Your task to perform on an android device: What's on my calendar today? Image 0: 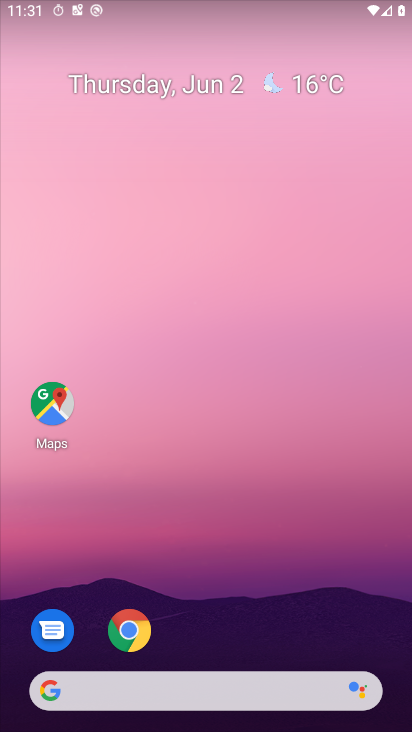
Step 0: drag from (208, 640) to (253, 337)
Your task to perform on an android device: What's on my calendar today? Image 1: 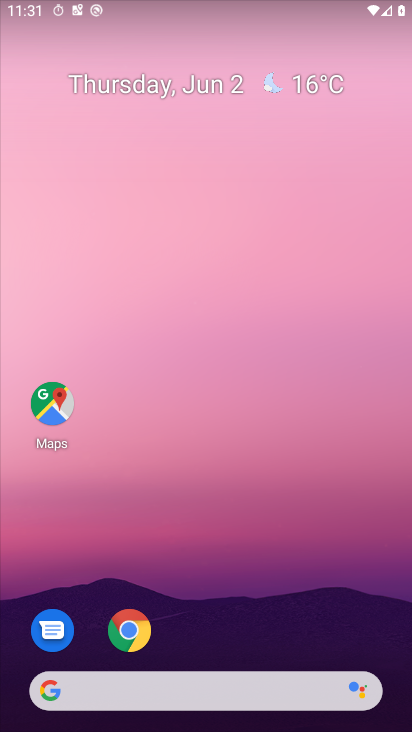
Step 1: drag from (203, 622) to (264, 11)
Your task to perform on an android device: What's on my calendar today? Image 2: 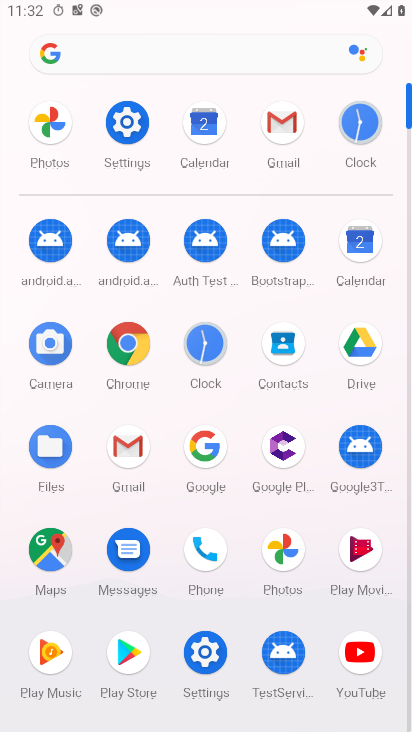
Step 2: click (362, 261)
Your task to perform on an android device: What's on my calendar today? Image 3: 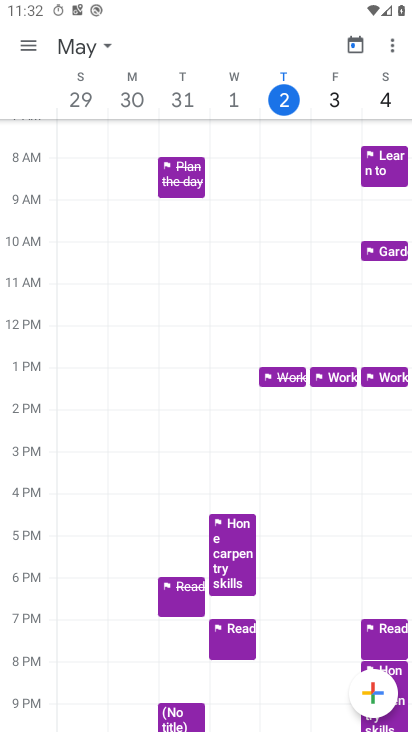
Step 3: click (27, 46)
Your task to perform on an android device: What's on my calendar today? Image 4: 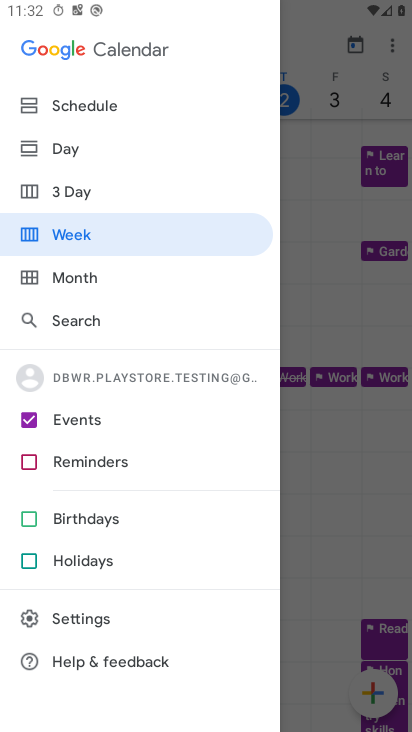
Step 4: click (65, 462)
Your task to perform on an android device: What's on my calendar today? Image 5: 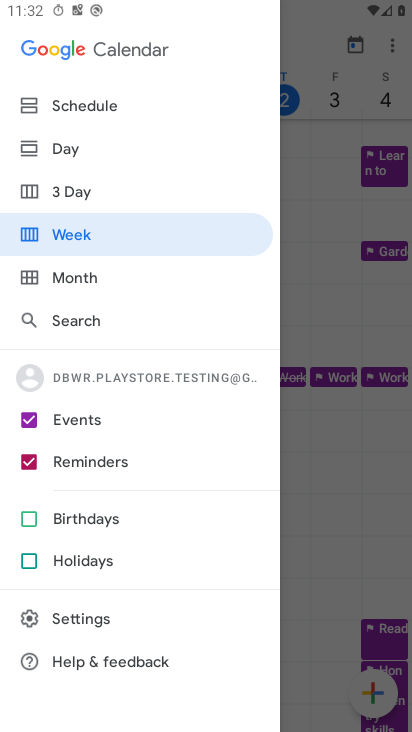
Step 5: click (56, 516)
Your task to perform on an android device: What's on my calendar today? Image 6: 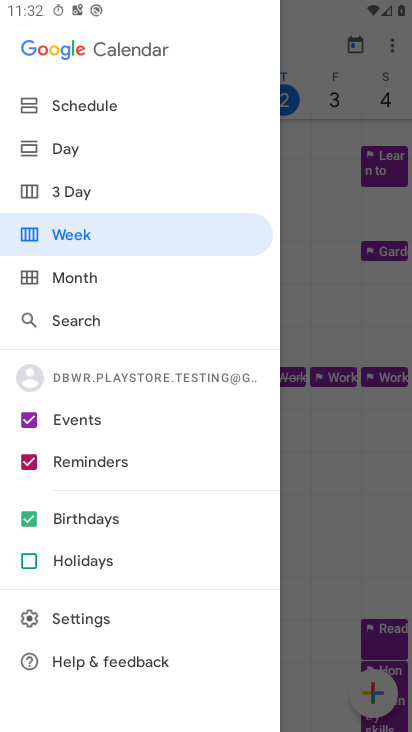
Step 6: click (48, 565)
Your task to perform on an android device: What's on my calendar today? Image 7: 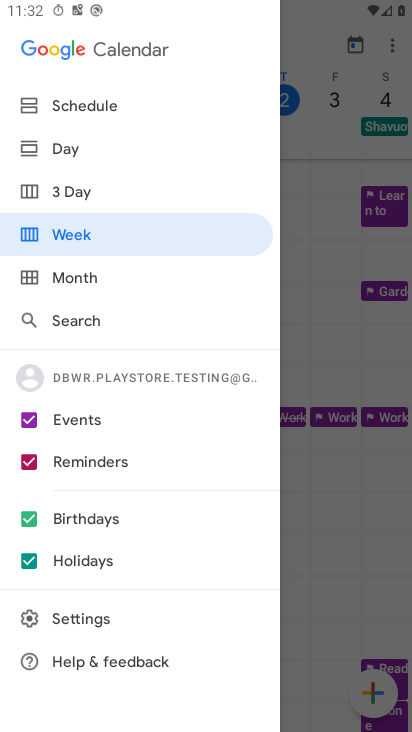
Step 7: click (73, 155)
Your task to perform on an android device: What's on my calendar today? Image 8: 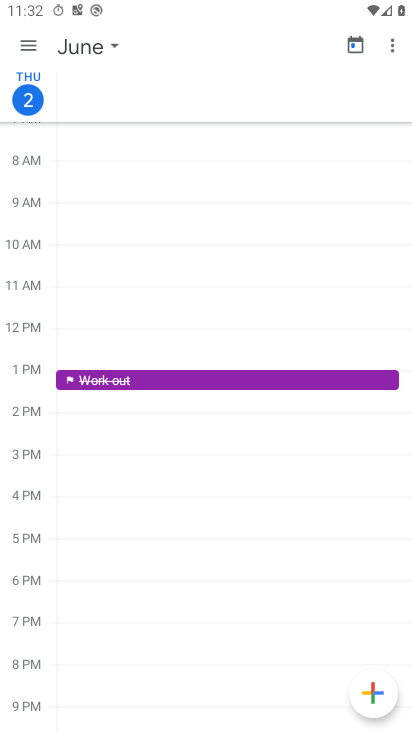
Step 8: task complete